Your task to perform on an android device: Clear the shopping cart on walmart. Add "asus zenbook" to the cart on walmart, then select checkout. Image 0: 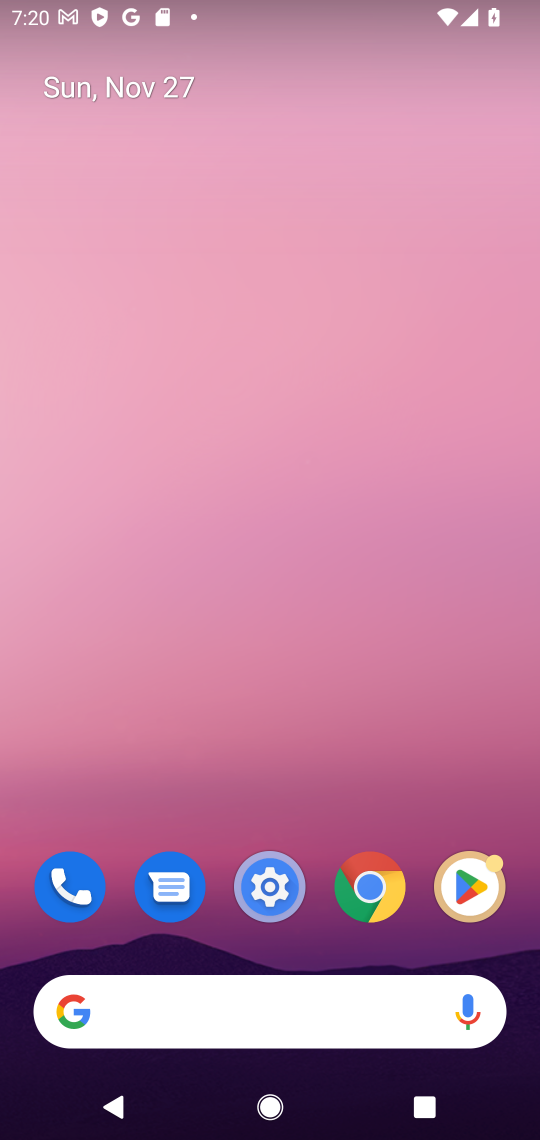
Step 0: press home button
Your task to perform on an android device: Clear the shopping cart on walmart. Add "asus zenbook" to the cart on walmart, then select checkout. Image 1: 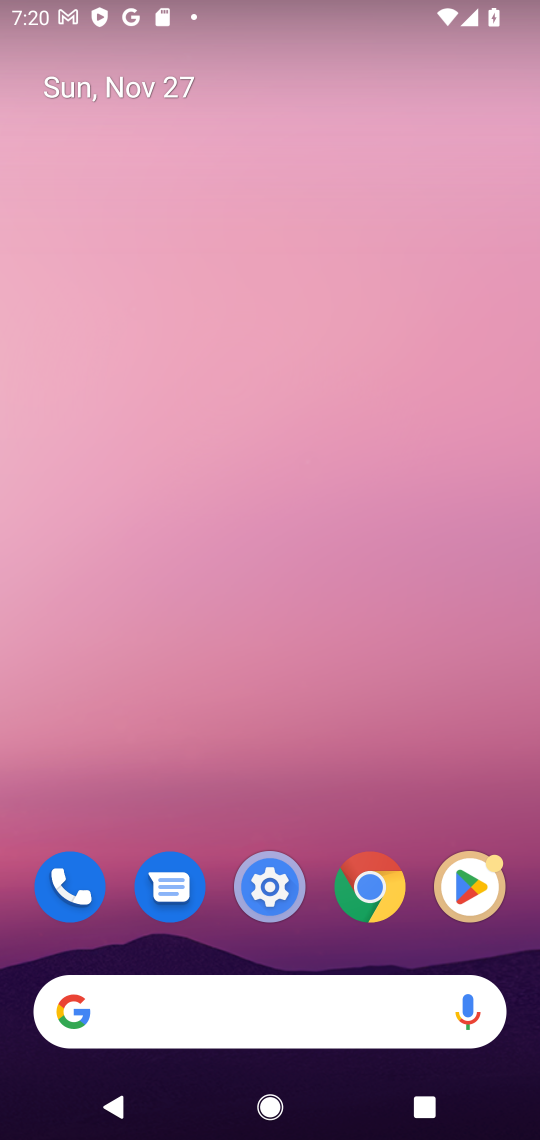
Step 1: click (316, 990)
Your task to perform on an android device: Clear the shopping cart on walmart. Add "asus zenbook" to the cart on walmart, then select checkout. Image 2: 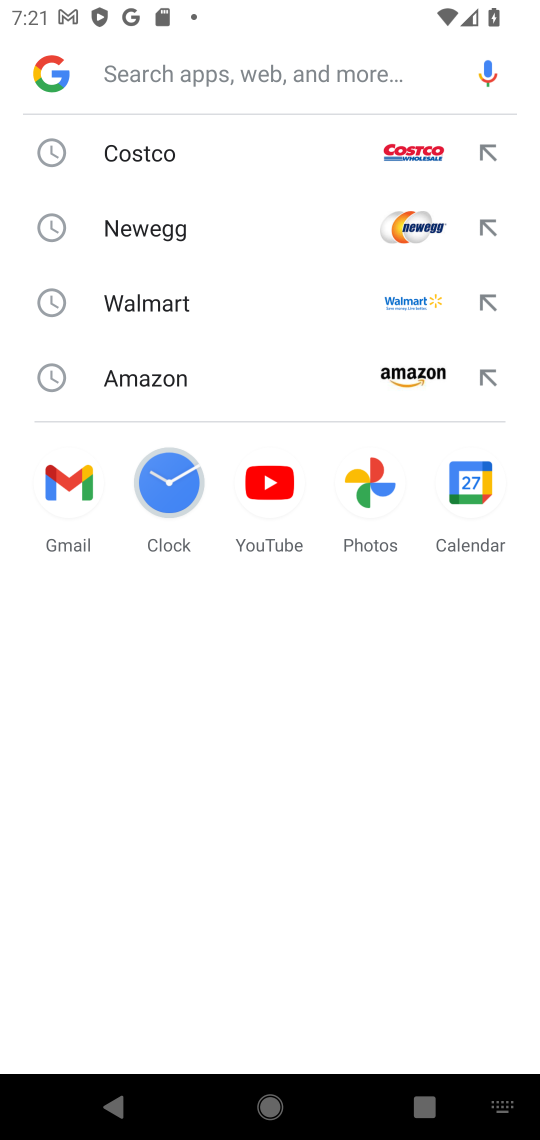
Step 2: click (251, 311)
Your task to perform on an android device: Clear the shopping cart on walmart. Add "asus zenbook" to the cart on walmart, then select checkout. Image 3: 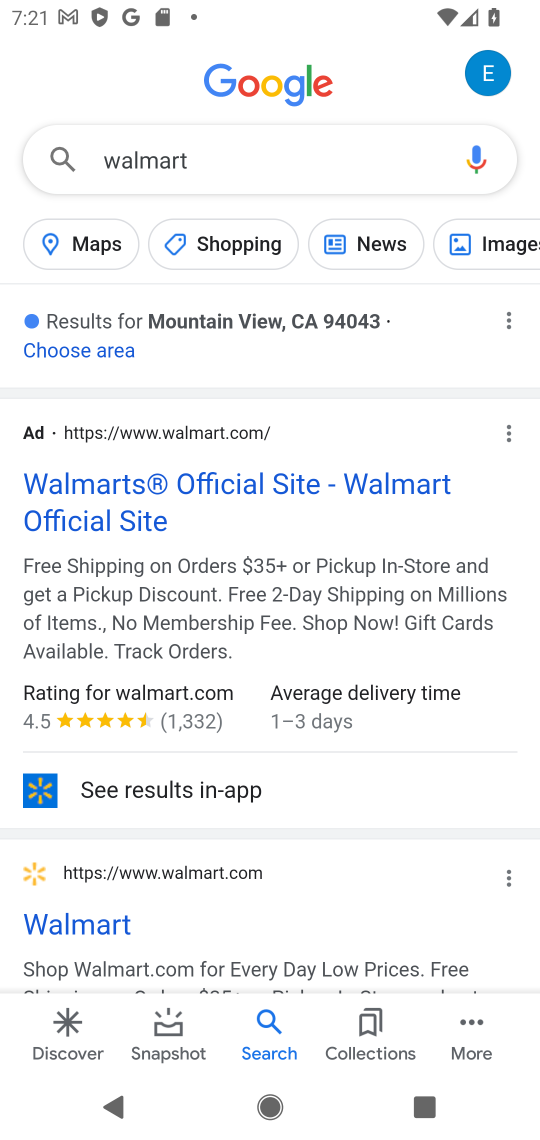
Step 3: click (212, 478)
Your task to perform on an android device: Clear the shopping cart on walmart. Add "asus zenbook" to the cart on walmart, then select checkout. Image 4: 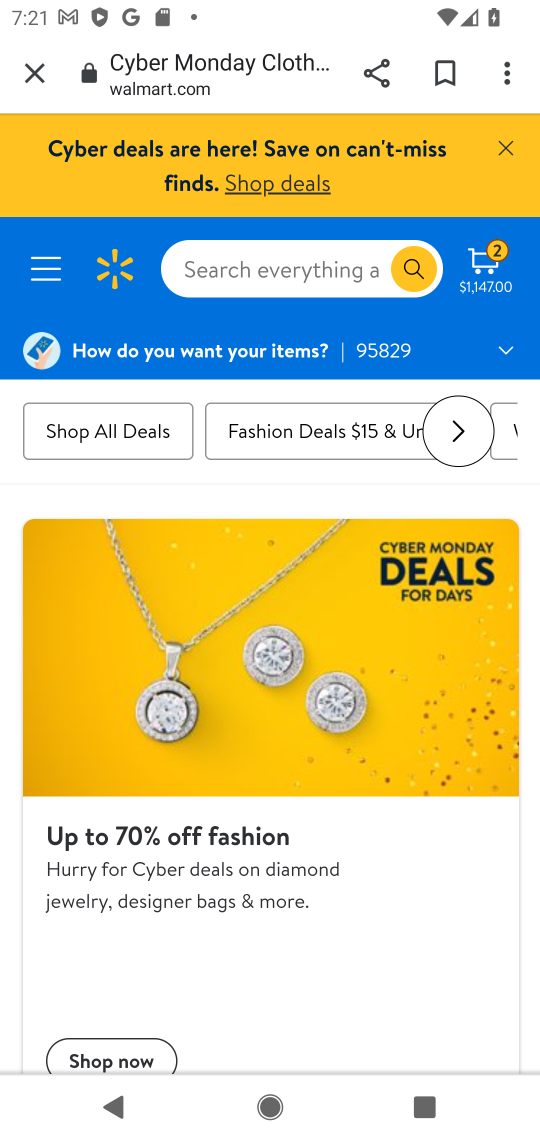
Step 4: click (221, 267)
Your task to perform on an android device: Clear the shopping cart on walmart. Add "asus zenbook" to the cart on walmart, then select checkout. Image 5: 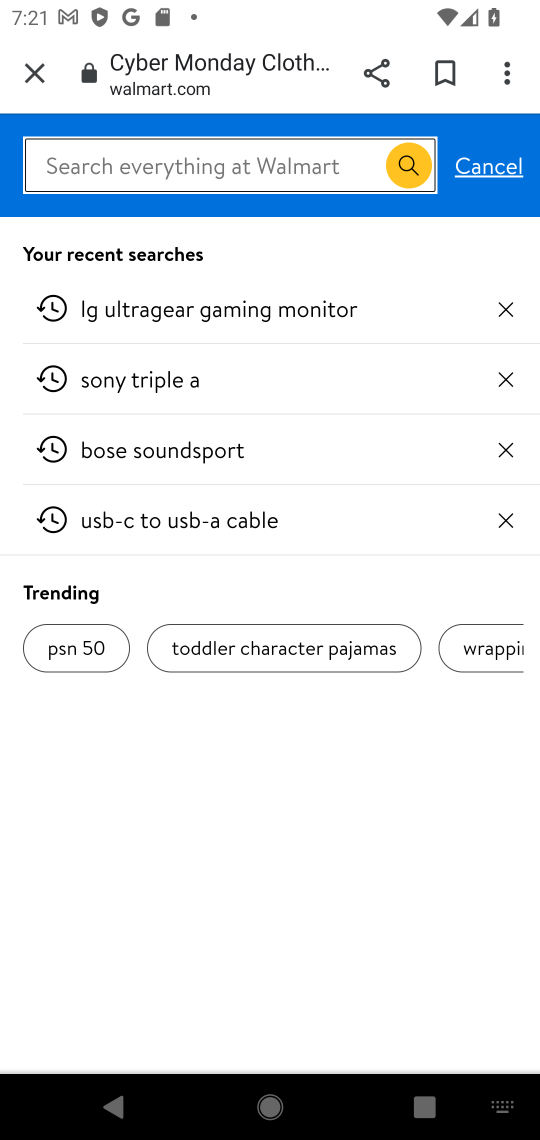
Step 5: type "asus zenbook"
Your task to perform on an android device: Clear the shopping cart on walmart. Add "asus zenbook" to the cart on walmart, then select checkout. Image 6: 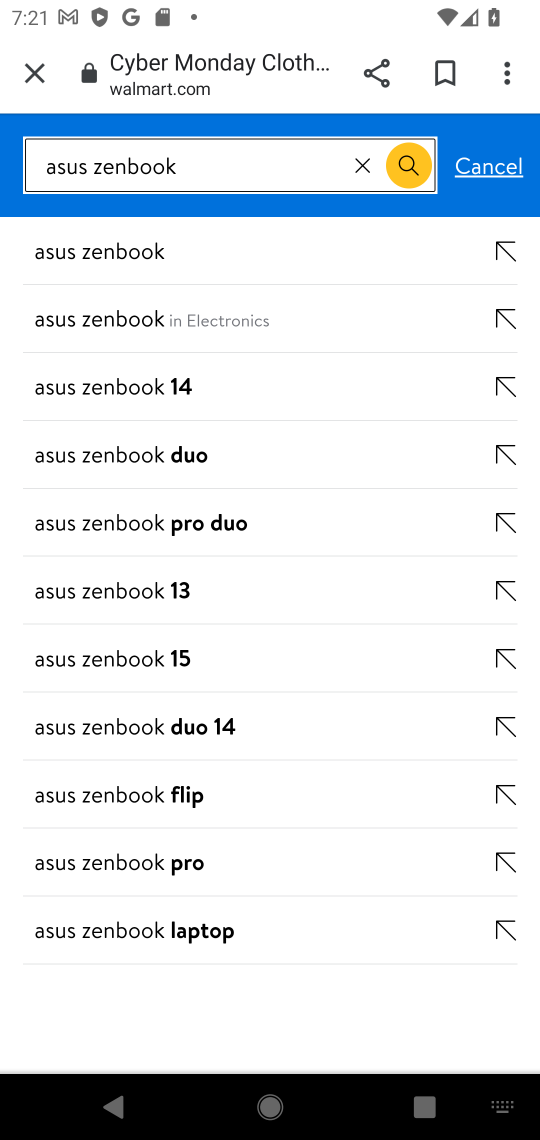
Step 6: click (145, 247)
Your task to perform on an android device: Clear the shopping cart on walmart. Add "asus zenbook" to the cart on walmart, then select checkout. Image 7: 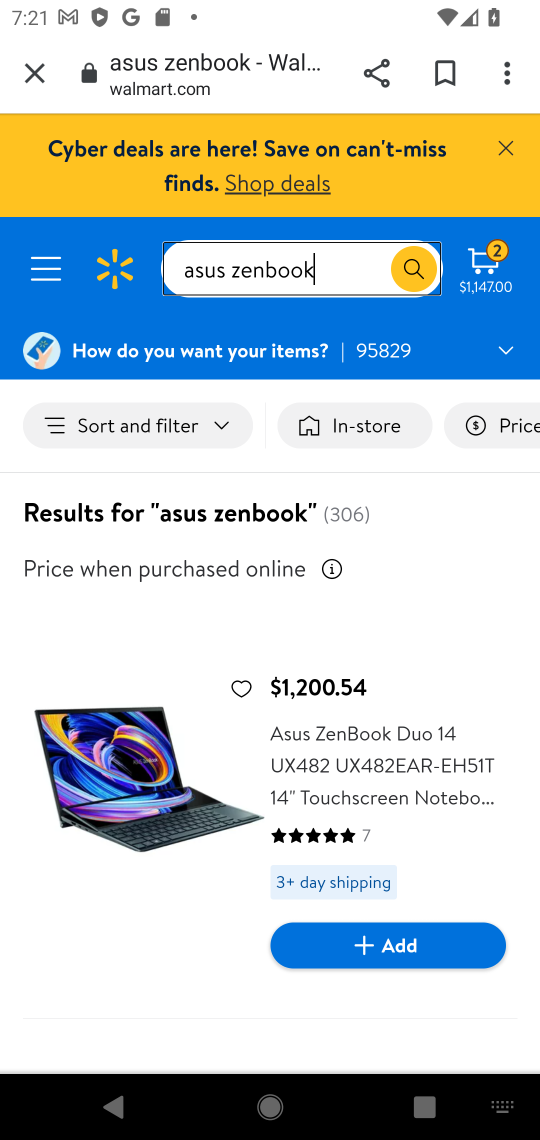
Step 7: click (381, 960)
Your task to perform on an android device: Clear the shopping cart on walmart. Add "asus zenbook" to the cart on walmart, then select checkout. Image 8: 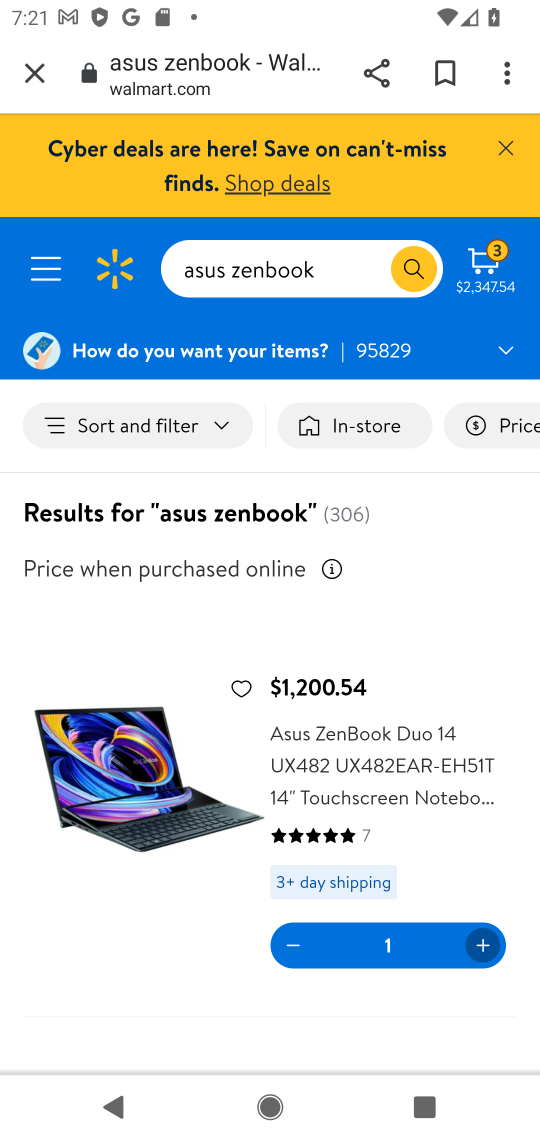
Step 8: task complete